Your task to perform on an android device: Empty the shopping cart on newegg. Search for "lenovo thinkpad" on newegg, select the first entry, and add it to the cart. Image 0: 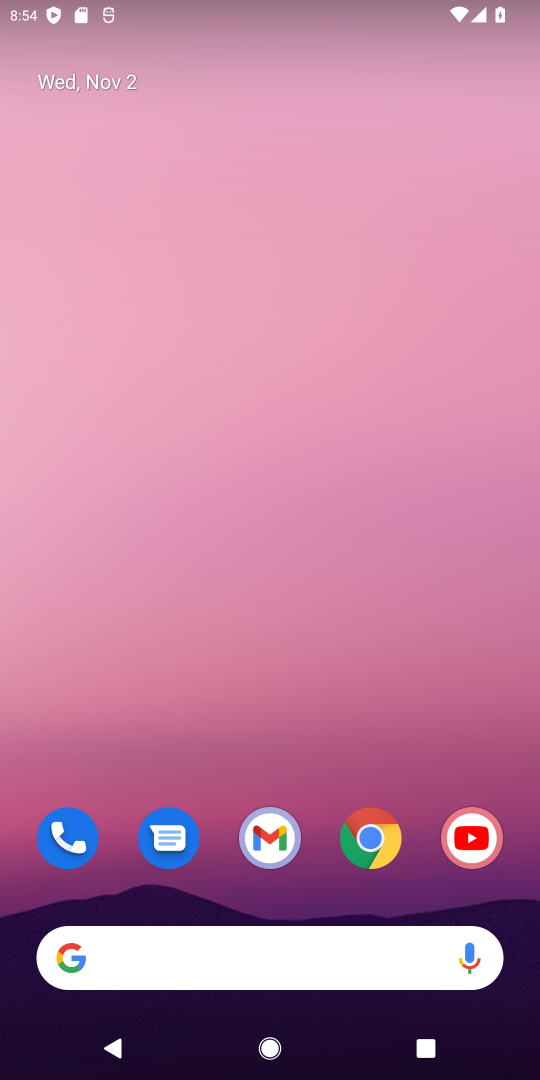
Step 0: click (379, 851)
Your task to perform on an android device: Empty the shopping cart on newegg. Search for "lenovo thinkpad" on newegg, select the first entry, and add it to the cart. Image 1: 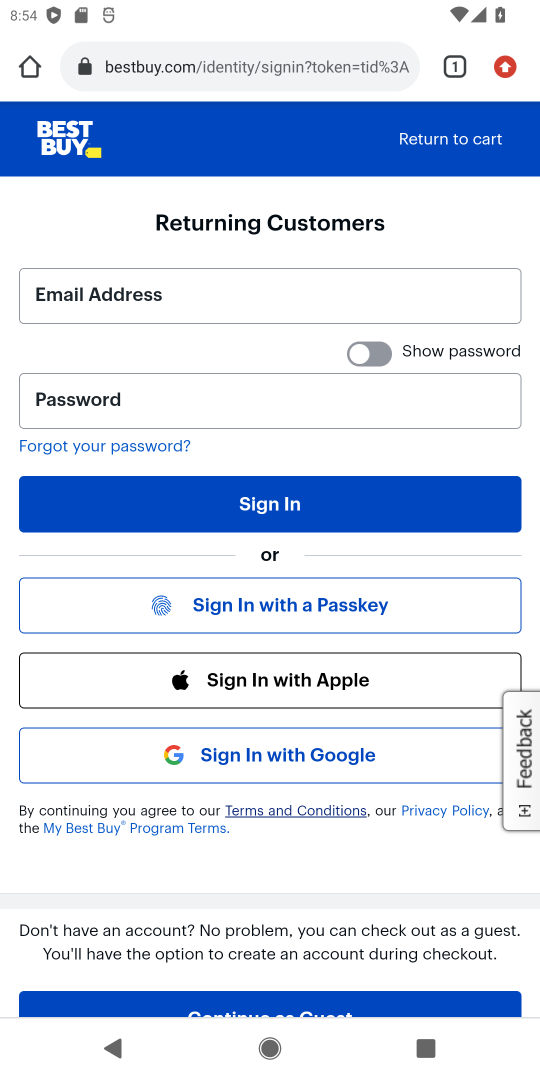
Step 1: click (281, 58)
Your task to perform on an android device: Empty the shopping cart on newegg. Search for "lenovo thinkpad" on newegg, select the first entry, and add it to the cart. Image 2: 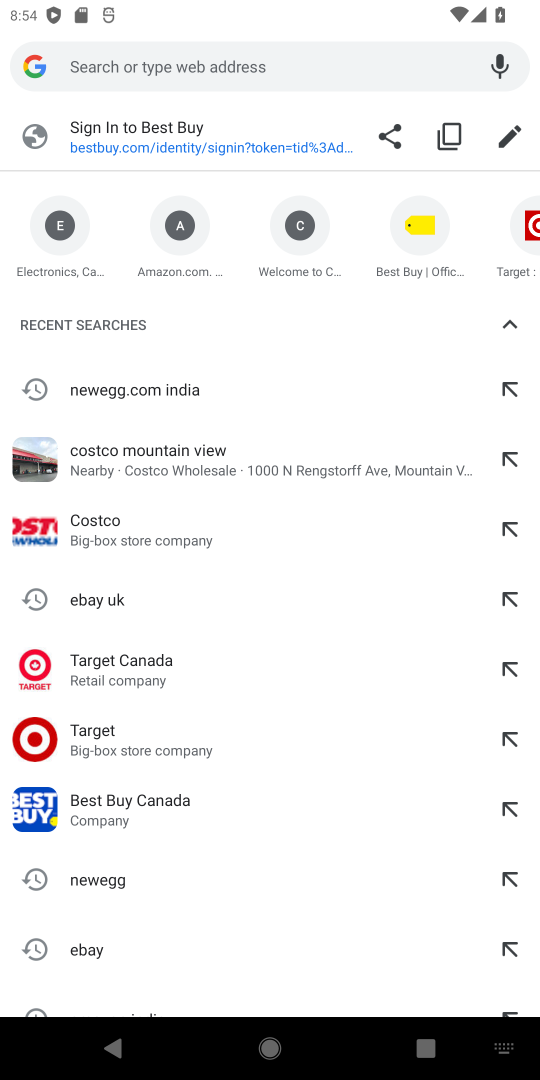
Step 2: type "newegg"
Your task to perform on an android device: Empty the shopping cart on newegg. Search for "lenovo thinkpad" on newegg, select the first entry, and add it to the cart. Image 3: 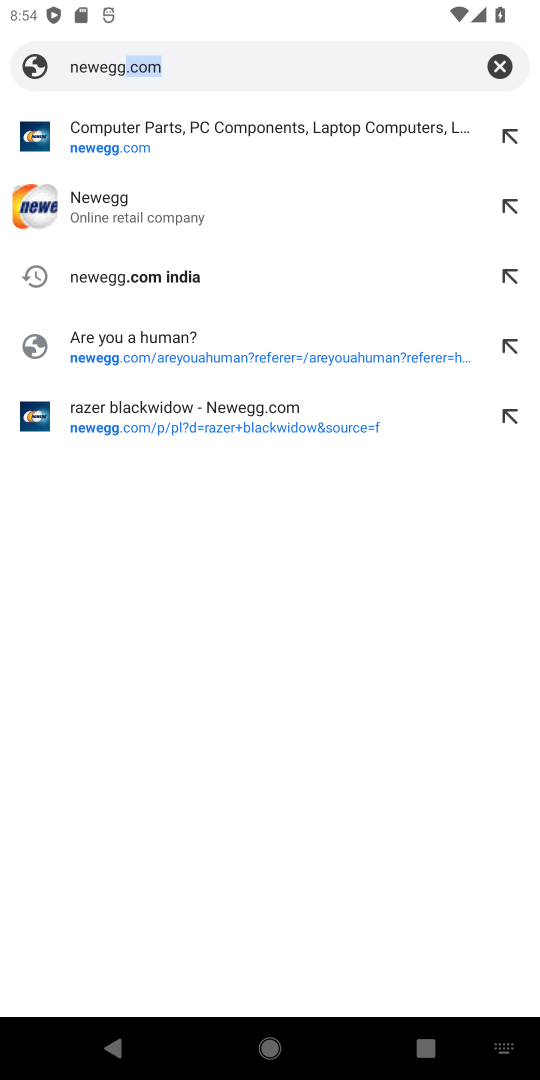
Step 3: press enter
Your task to perform on an android device: Empty the shopping cart on newegg. Search for "lenovo thinkpad" on newegg, select the first entry, and add it to the cart. Image 4: 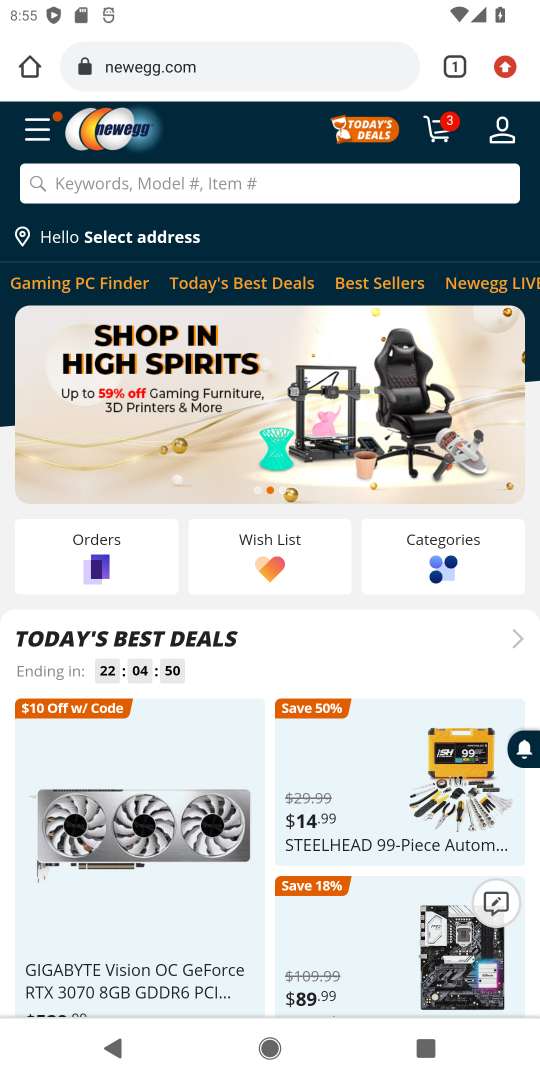
Step 4: click (394, 890)
Your task to perform on an android device: Empty the shopping cart on newegg. Search for "lenovo thinkpad" on newegg, select the first entry, and add it to the cart. Image 5: 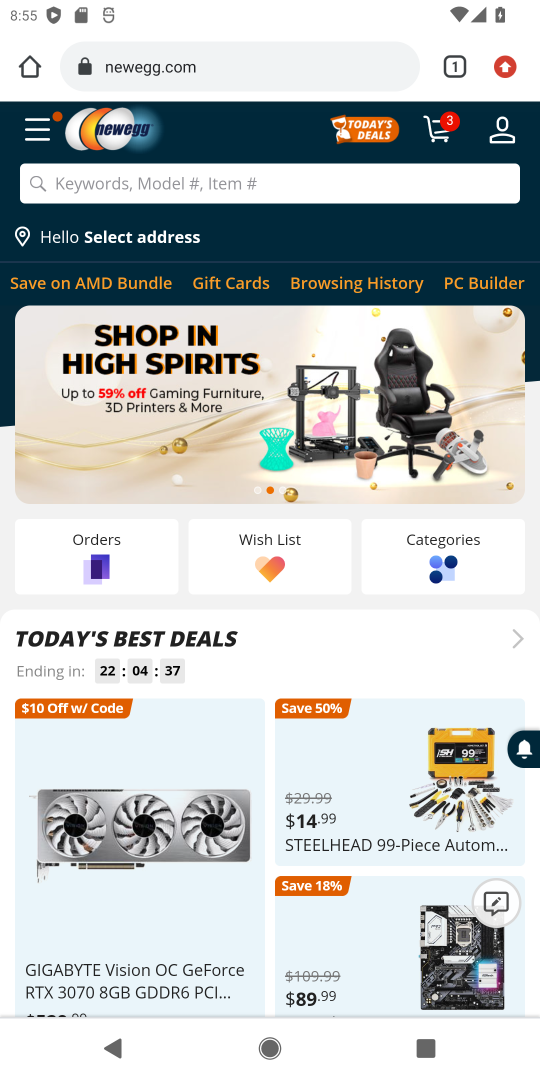
Step 5: click (437, 127)
Your task to perform on an android device: Empty the shopping cart on newegg. Search for "lenovo thinkpad" on newegg, select the first entry, and add it to the cart. Image 6: 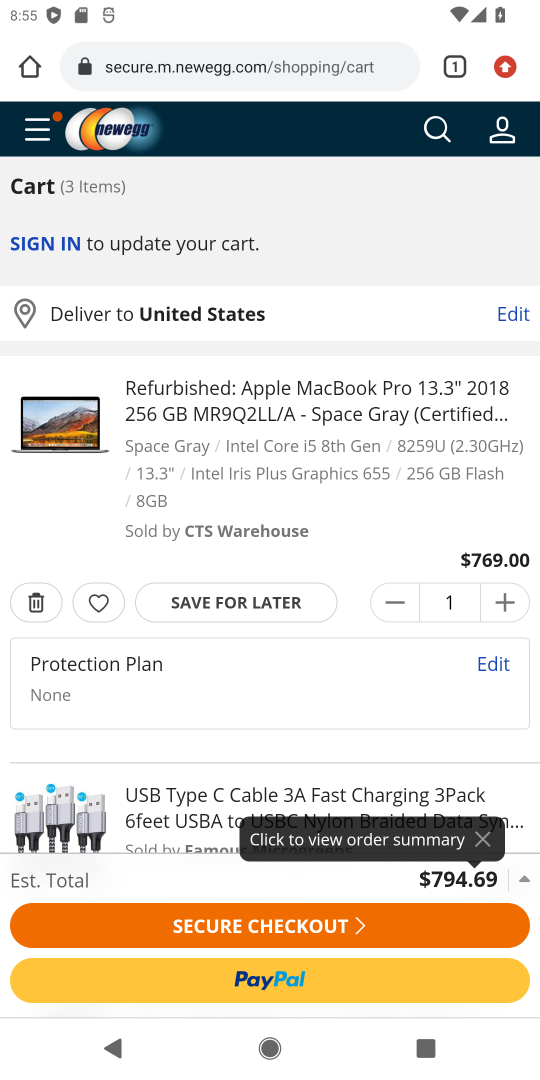
Step 6: click (37, 599)
Your task to perform on an android device: Empty the shopping cart on newegg. Search for "lenovo thinkpad" on newegg, select the first entry, and add it to the cart. Image 7: 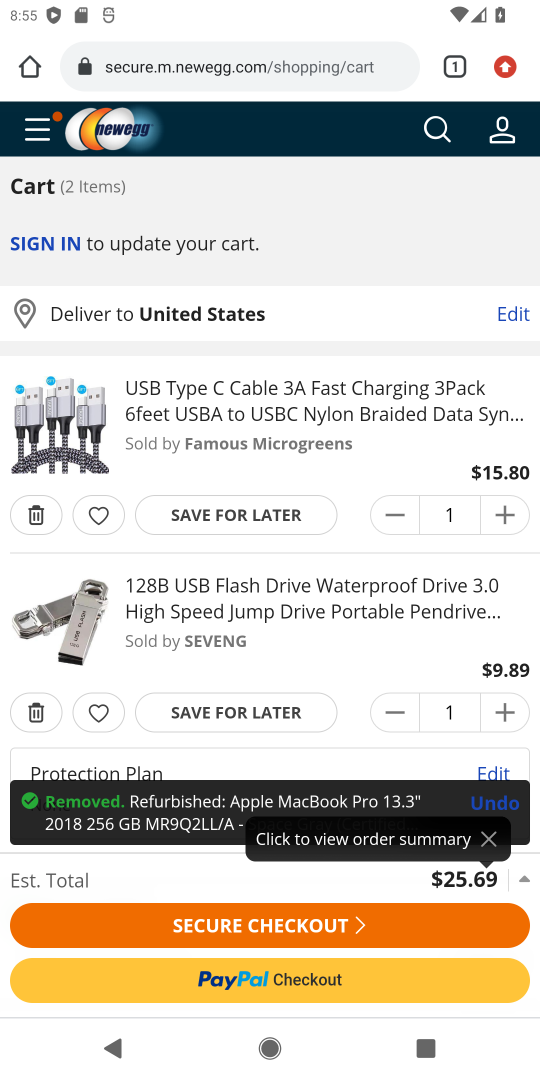
Step 7: click (29, 506)
Your task to perform on an android device: Empty the shopping cart on newegg. Search for "lenovo thinkpad" on newegg, select the first entry, and add it to the cart. Image 8: 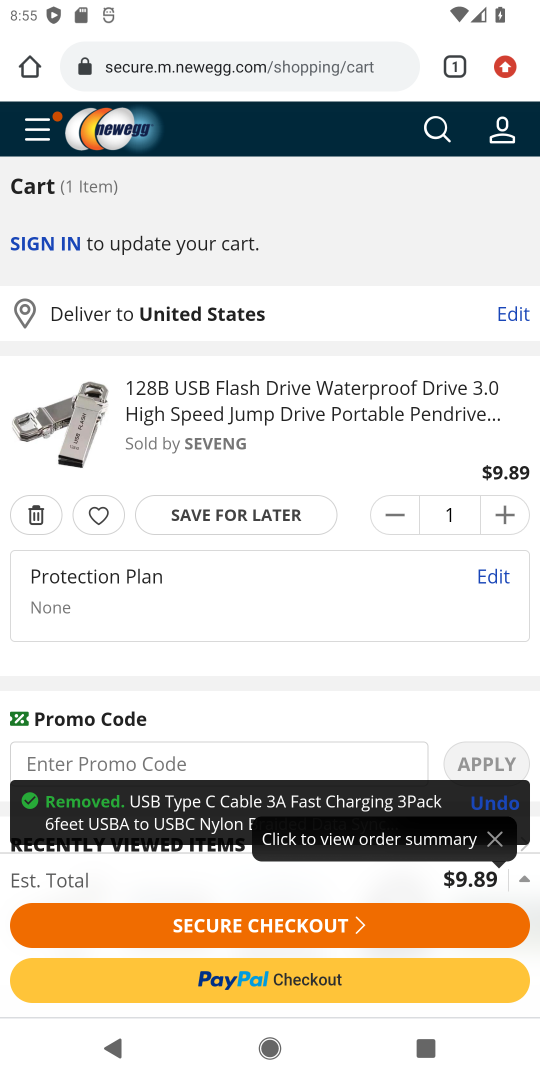
Step 8: click (38, 523)
Your task to perform on an android device: Empty the shopping cart on newegg. Search for "lenovo thinkpad" on newegg, select the first entry, and add it to the cart. Image 9: 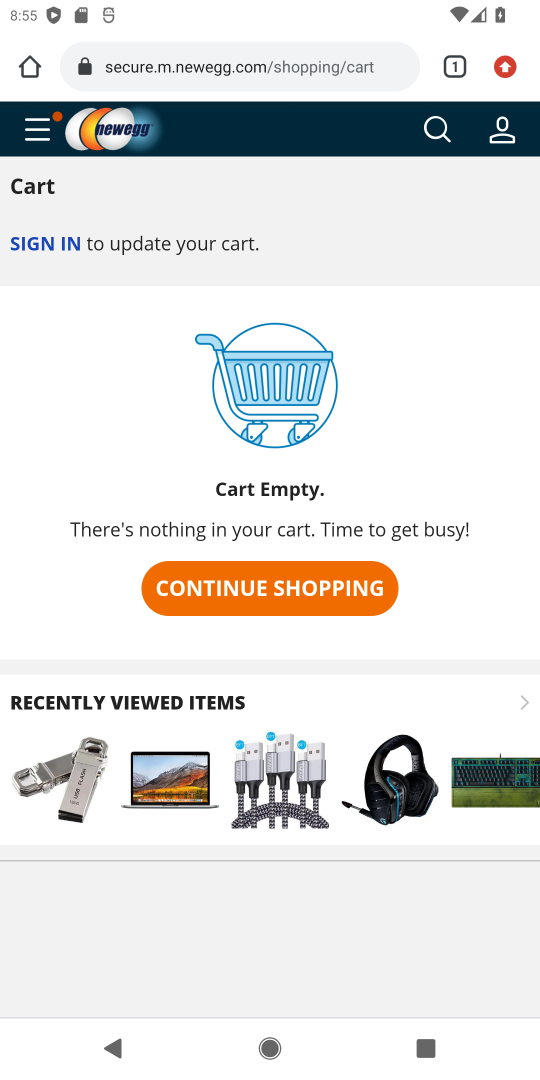
Step 9: click (245, 590)
Your task to perform on an android device: Empty the shopping cart on newegg. Search for "lenovo thinkpad" on newegg, select the first entry, and add it to the cart. Image 10: 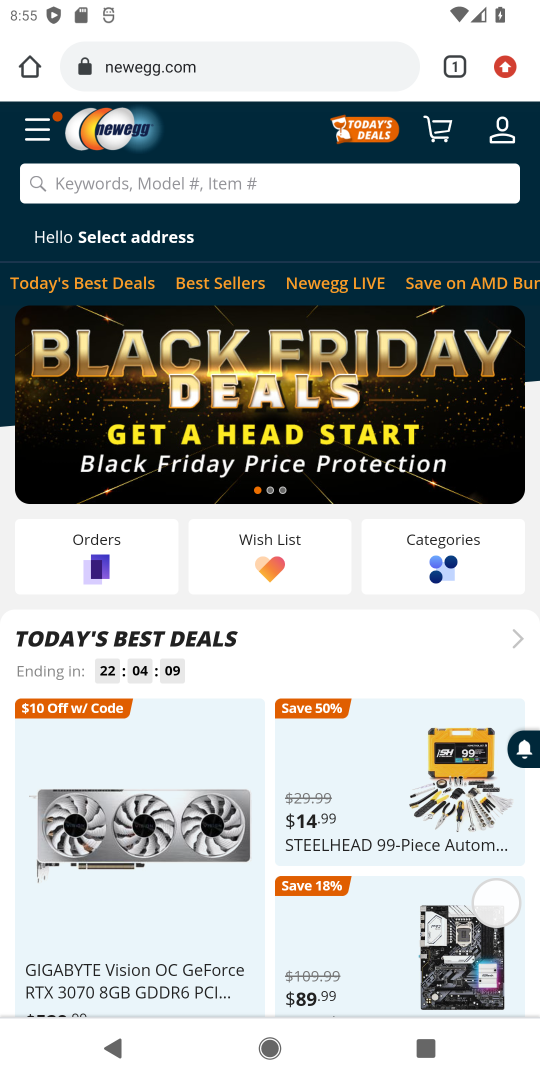
Step 10: click (302, 191)
Your task to perform on an android device: Empty the shopping cart on newegg. Search for "lenovo thinkpad" on newegg, select the first entry, and add it to the cart. Image 11: 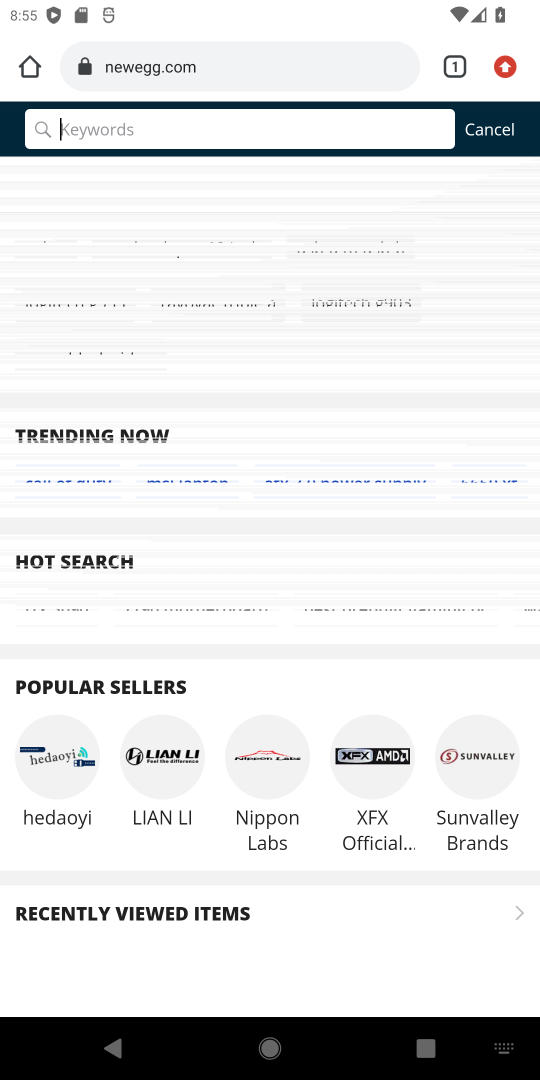
Step 11: type "lenovo thinkpad"
Your task to perform on an android device: Empty the shopping cart on newegg. Search for "lenovo thinkpad" on newegg, select the first entry, and add it to the cart. Image 12: 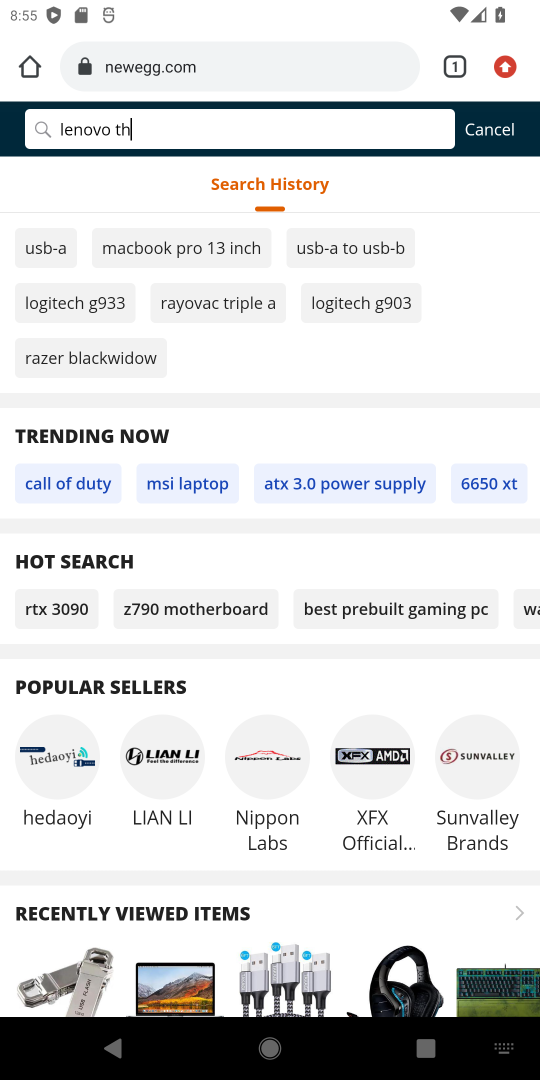
Step 12: type ""
Your task to perform on an android device: Empty the shopping cart on newegg. Search for "lenovo thinkpad" on newegg, select the first entry, and add it to the cart. Image 13: 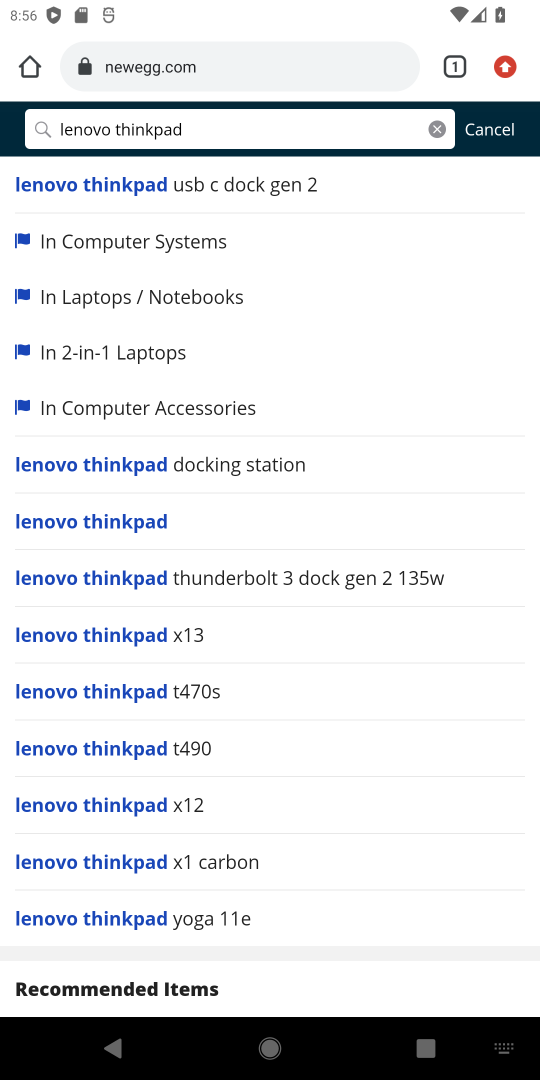
Step 13: press enter
Your task to perform on an android device: Empty the shopping cart on newegg. Search for "lenovo thinkpad" on newegg, select the first entry, and add it to the cart. Image 14: 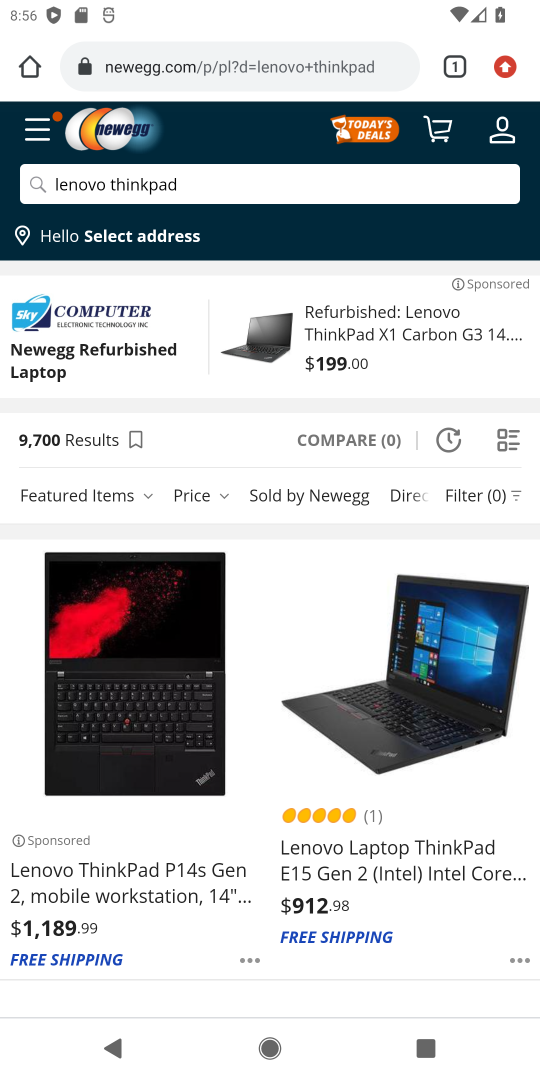
Step 14: drag from (307, 888) to (310, 798)
Your task to perform on an android device: Empty the shopping cart on newegg. Search for "lenovo thinkpad" on newegg, select the first entry, and add it to the cart. Image 15: 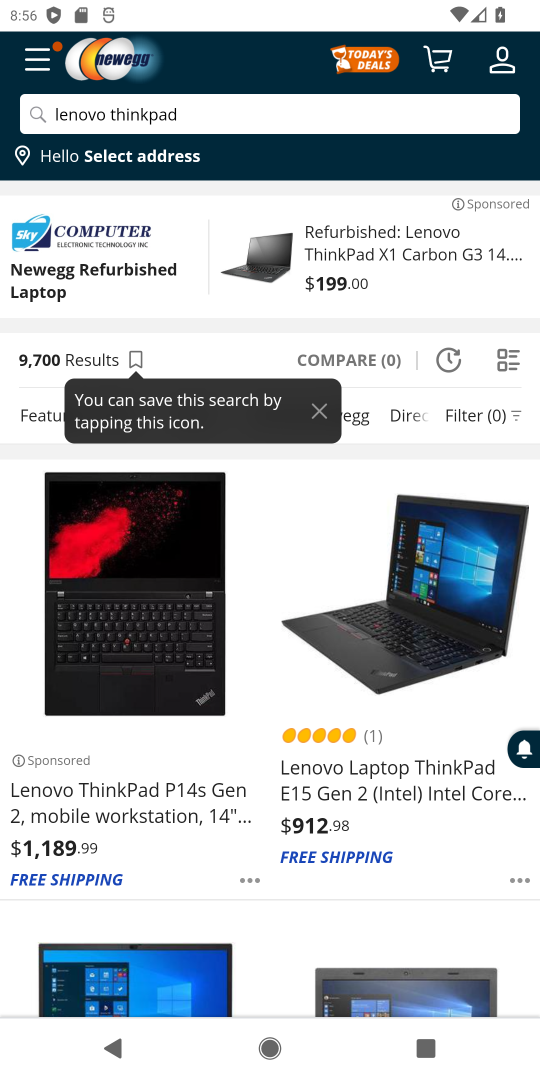
Step 15: click (141, 757)
Your task to perform on an android device: Empty the shopping cart on newegg. Search for "lenovo thinkpad" on newegg, select the first entry, and add it to the cart. Image 16: 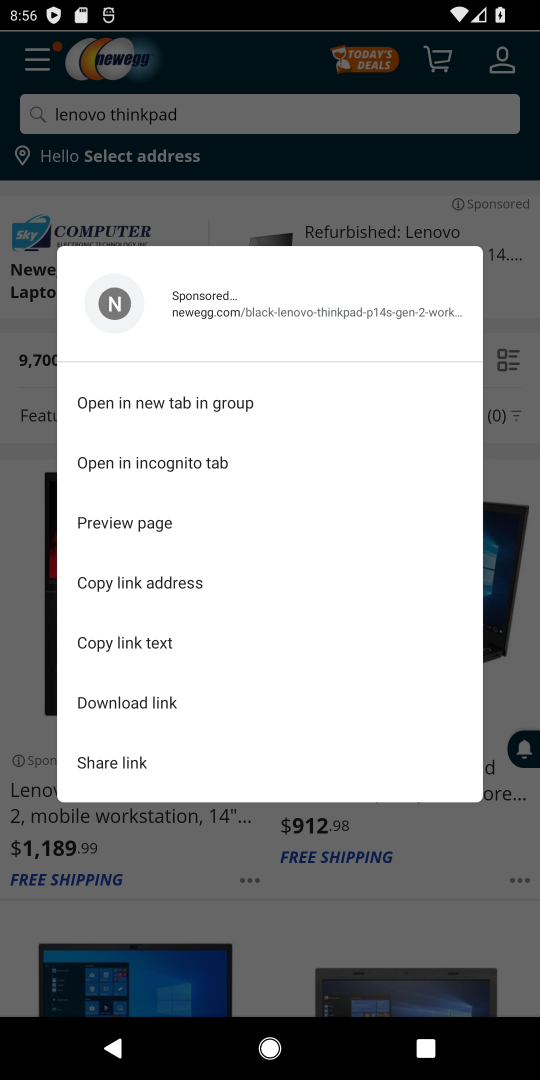
Step 16: press back button
Your task to perform on an android device: Empty the shopping cart on newegg. Search for "lenovo thinkpad" on newegg, select the first entry, and add it to the cart. Image 17: 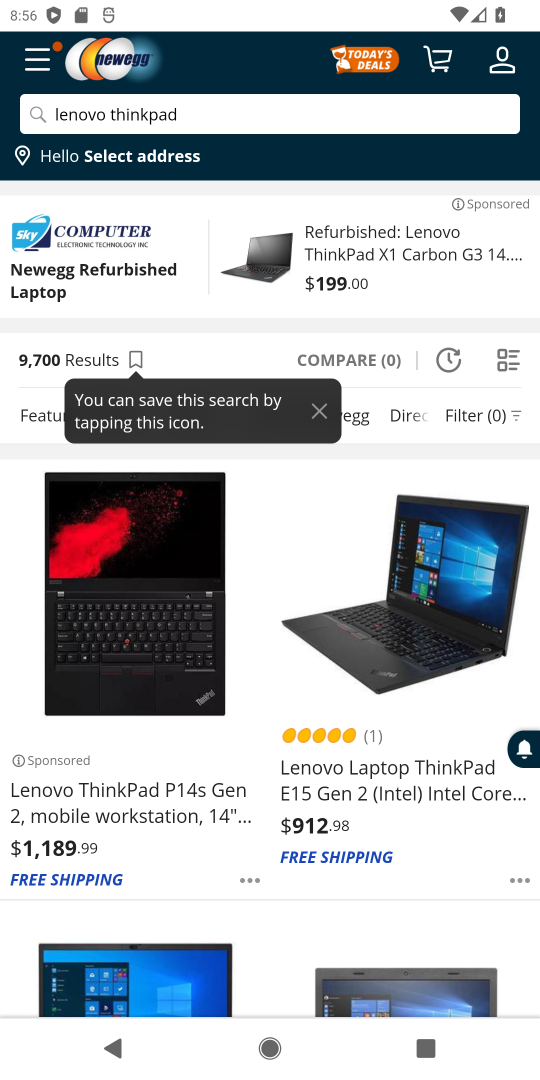
Step 17: click (152, 777)
Your task to perform on an android device: Empty the shopping cart on newegg. Search for "lenovo thinkpad" on newegg, select the first entry, and add it to the cart. Image 18: 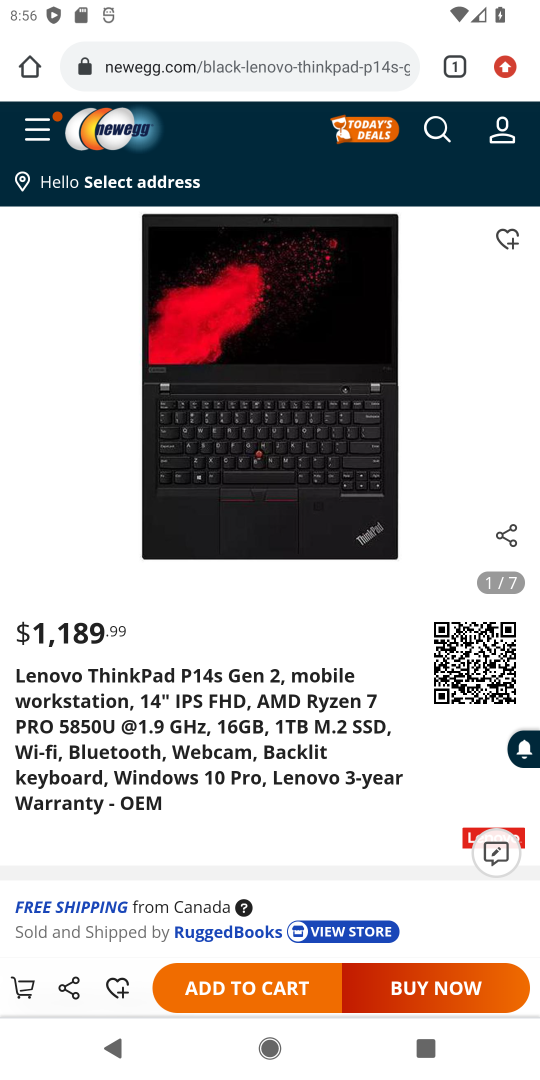
Step 18: click (277, 994)
Your task to perform on an android device: Empty the shopping cart on newegg. Search for "lenovo thinkpad" on newegg, select the first entry, and add it to the cart. Image 19: 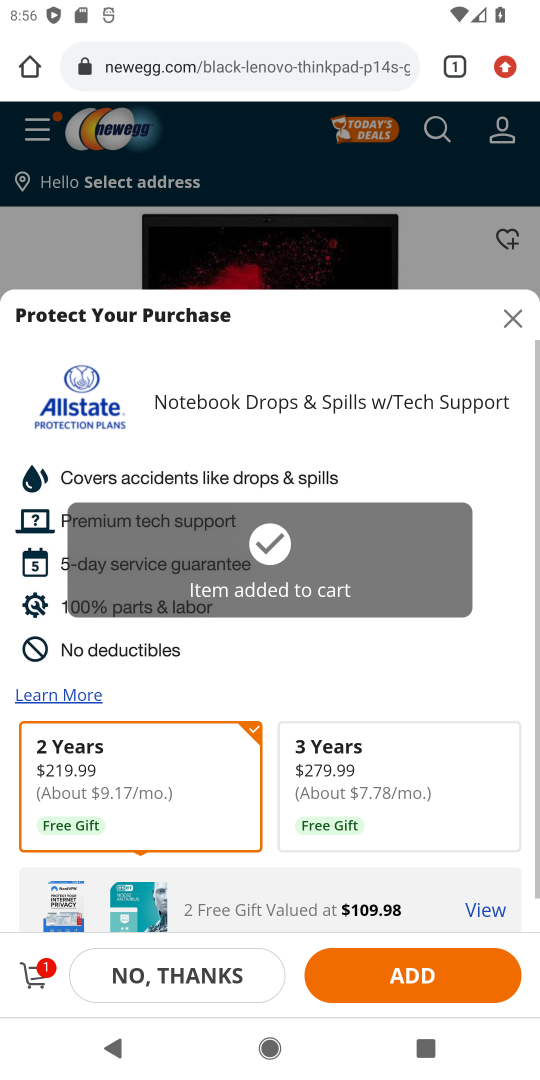
Step 19: click (37, 978)
Your task to perform on an android device: Empty the shopping cart on newegg. Search for "lenovo thinkpad" on newegg, select the first entry, and add it to the cart. Image 20: 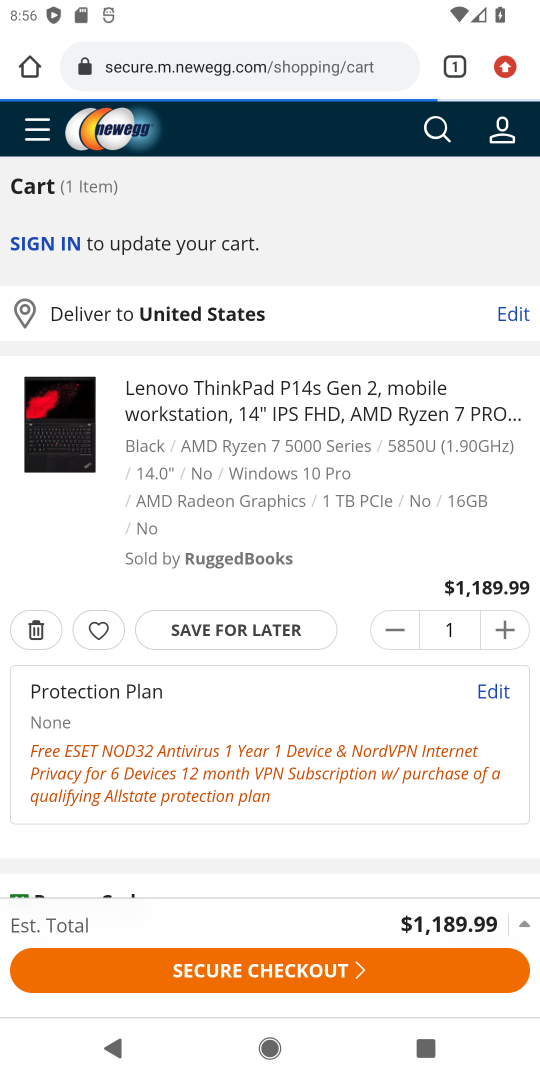
Step 20: click (37, 978)
Your task to perform on an android device: Empty the shopping cart on newegg. Search for "lenovo thinkpad" on newegg, select the first entry, and add it to the cart. Image 21: 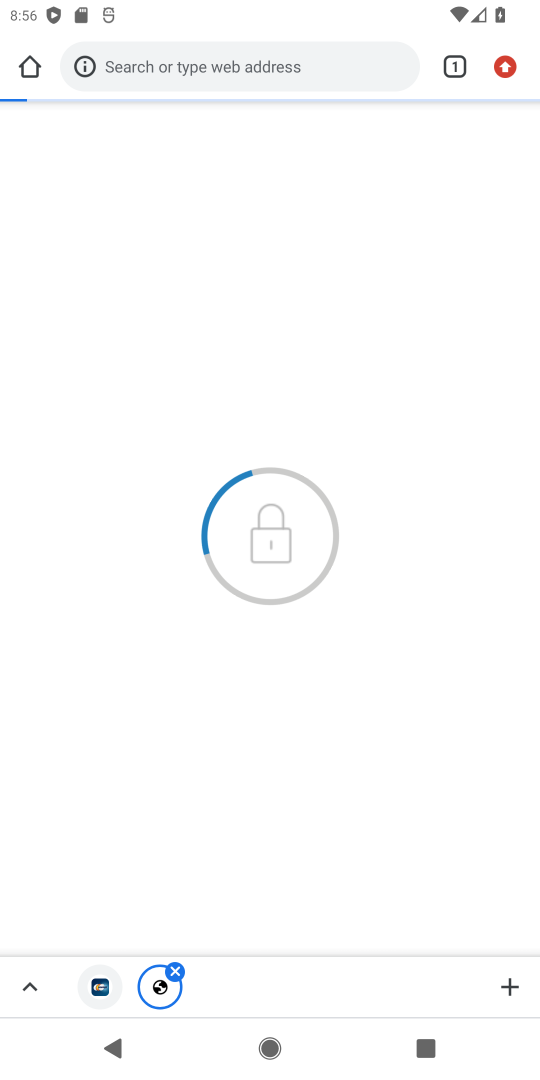
Step 21: press back button
Your task to perform on an android device: Empty the shopping cart on newegg. Search for "lenovo thinkpad" on newegg, select the first entry, and add it to the cart. Image 22: 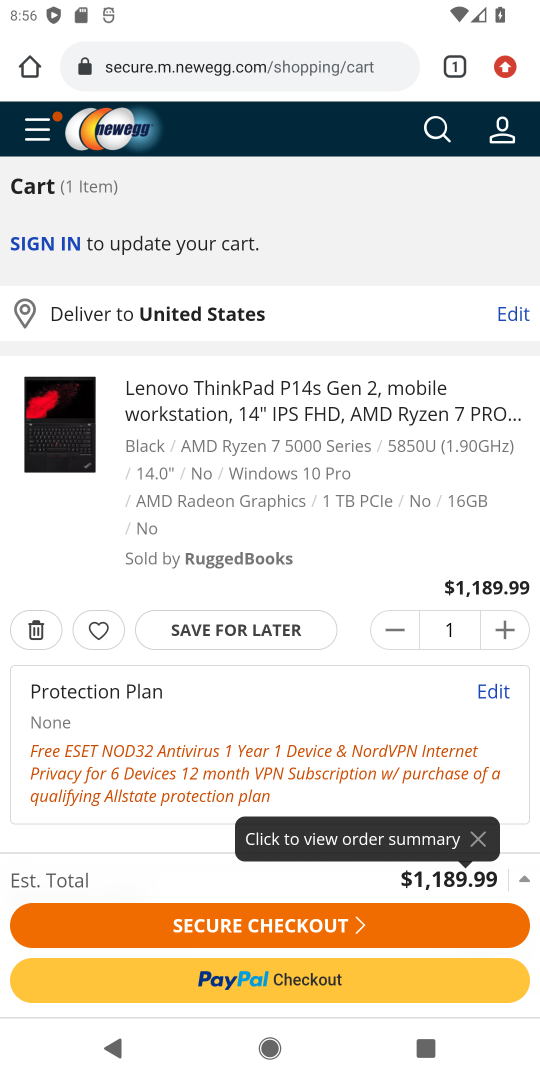
Step 22: click (284, 915)
Your task to perform on an android device: Empty the shopping cart on newegg. Search for "lenovo thinkpad" on newegg, select the first entry, and add it to the cart. Image 23: 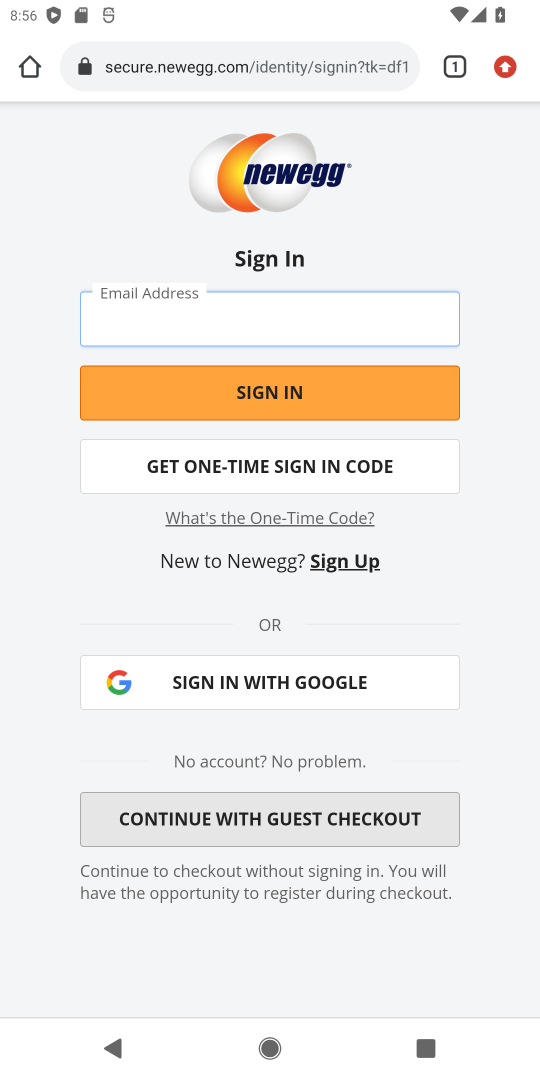
Step 23: task complete